Your task to perform on an android device: toggle location history Image 0: 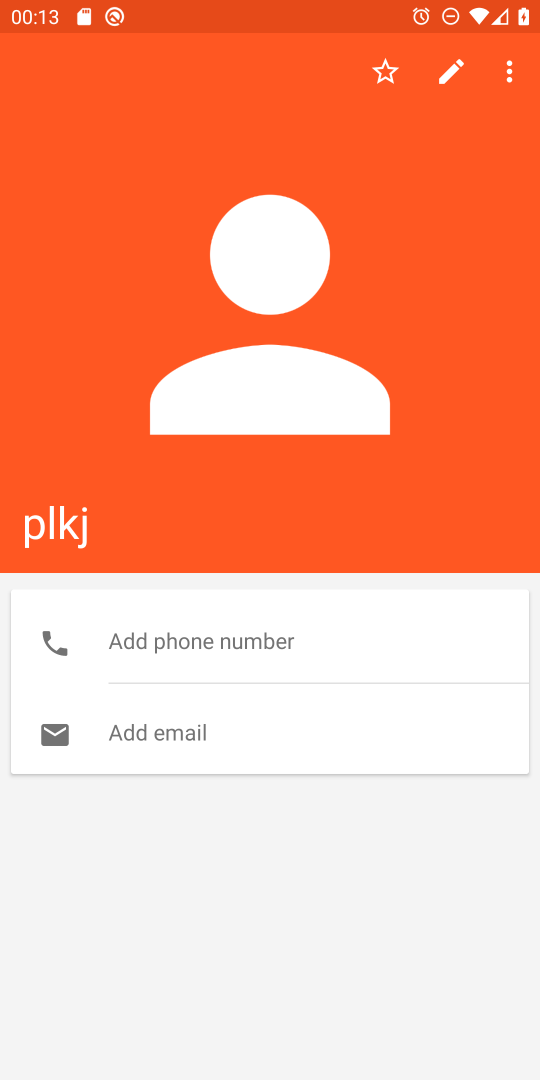
Step 0: press home button
Your task to perform on an android device: toggle location history Image 1: 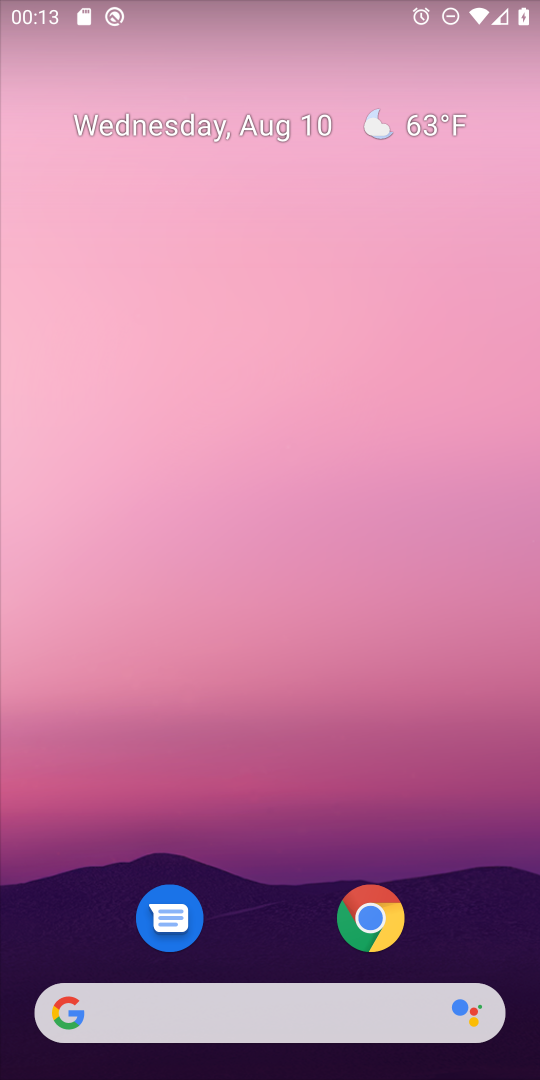
Step 1: drag from (276, 844) to (207, 67)
Your task to perform on an android device: toggle location history Image 2: 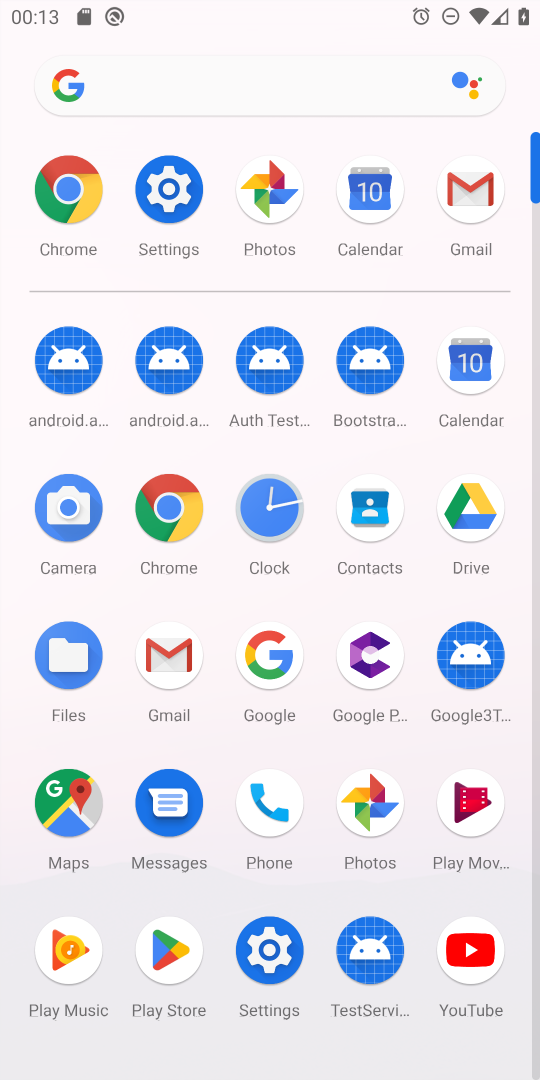
Step 2: click (174, 183)
Your task to perform on an android device: toggle location history Image 3: 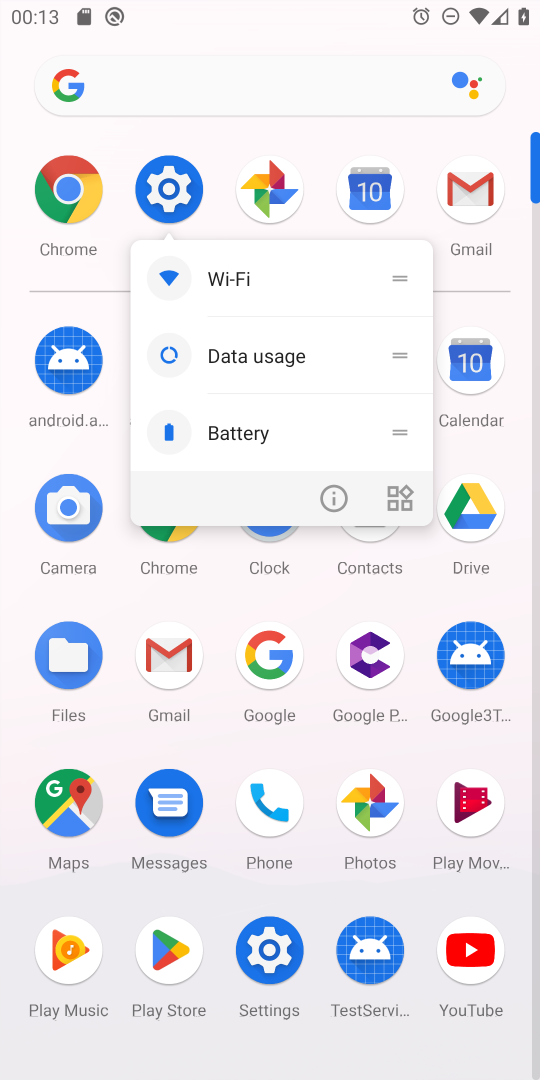
Step 3: click (173, 192)
Your task to perform on an android device: toggle location history Image 4: 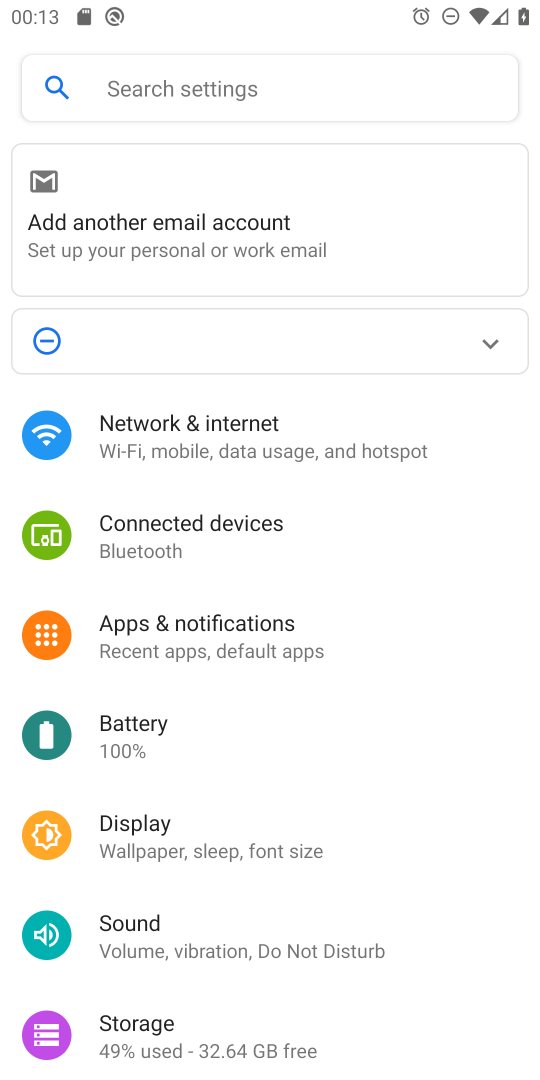
Step 4: drag from (367, 846) to (414, 371)
Your task to perform on an android device: toggle location history Image 5: 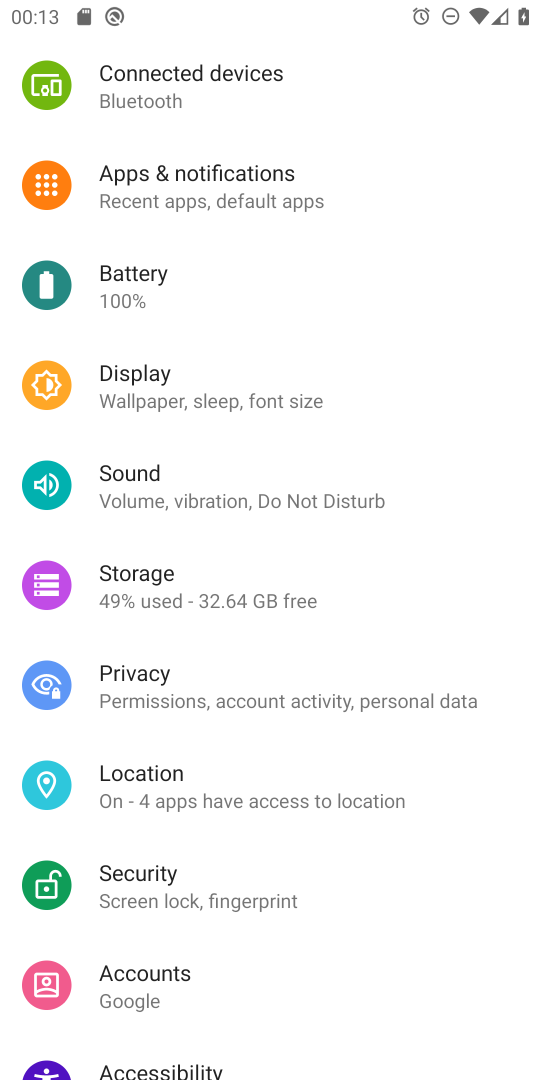
Step 5: click (119, 777)
Your task to perform on an android device: toggle location history Image 6: 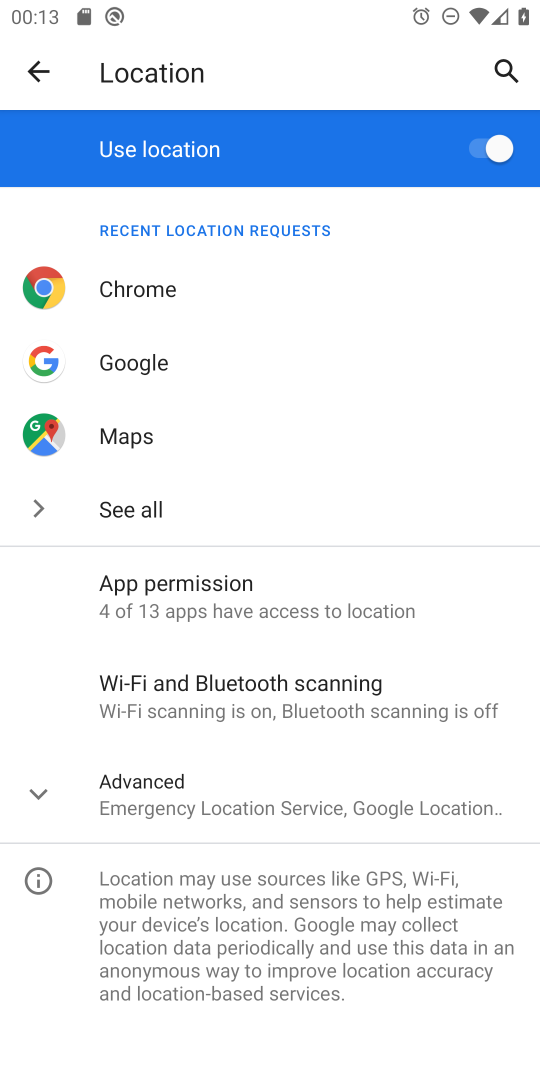
Step 6: click (174, 789)
Your task to perform on an android device: toggle location history Image 7: 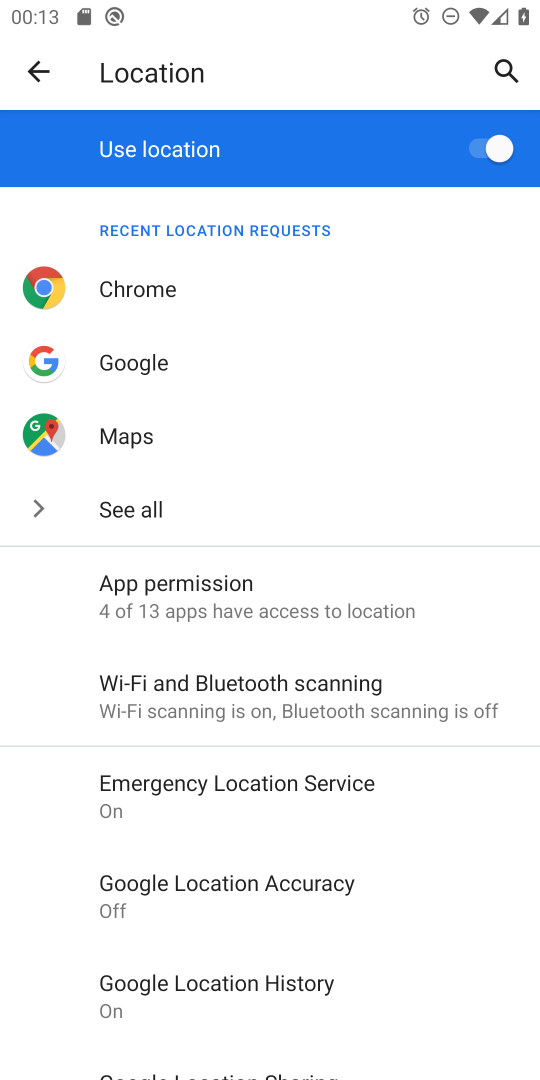
Step 7: click (266, 977)
Your task to perform on an android device: toggle location history Image 8: 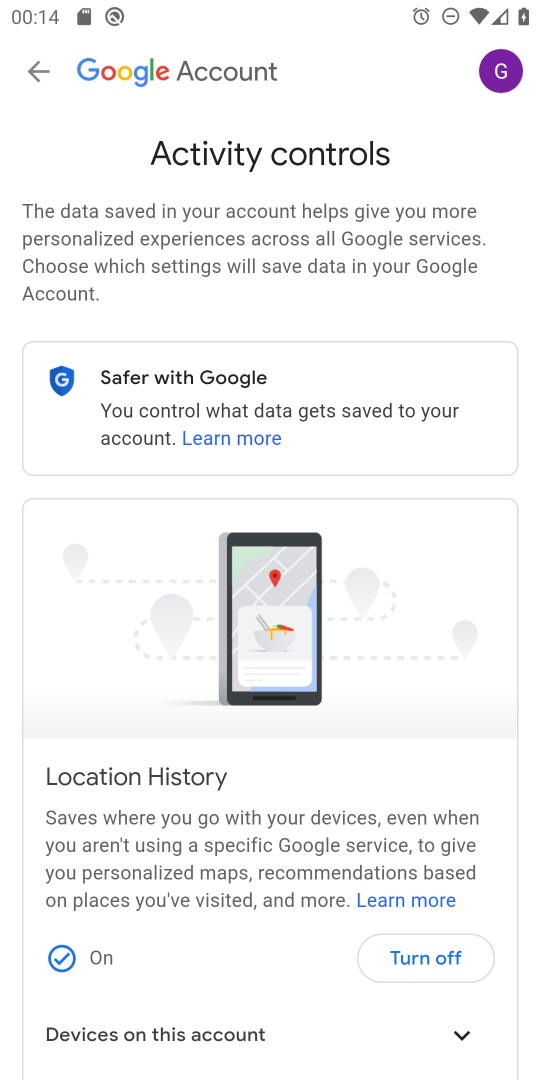
Step 8: click (450, 965)
Your task to perform on an android device: toggle location history Image 9: 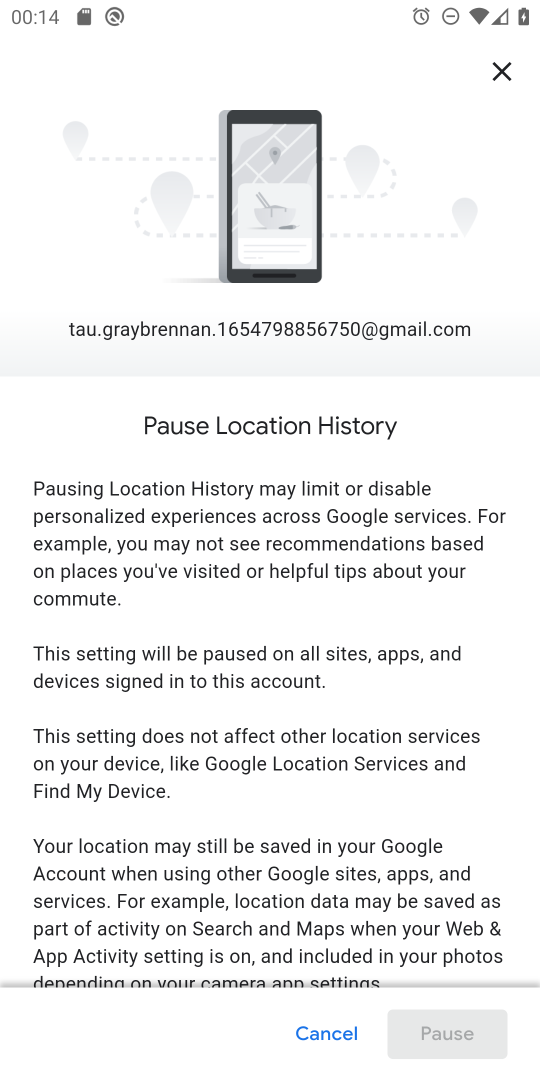
Step 9: drag from (426, 986) to (443, 504)
Your task to perform on an android device: toggle location history Image 10: 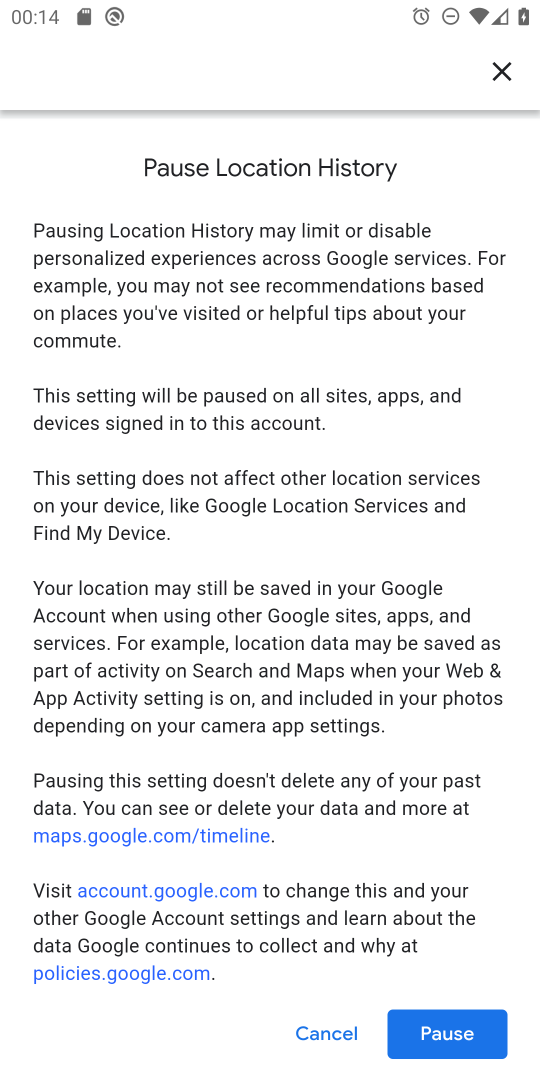
Step 10: click (440, 1038)
Your task to perform on an android device: toggle location history Image 11: 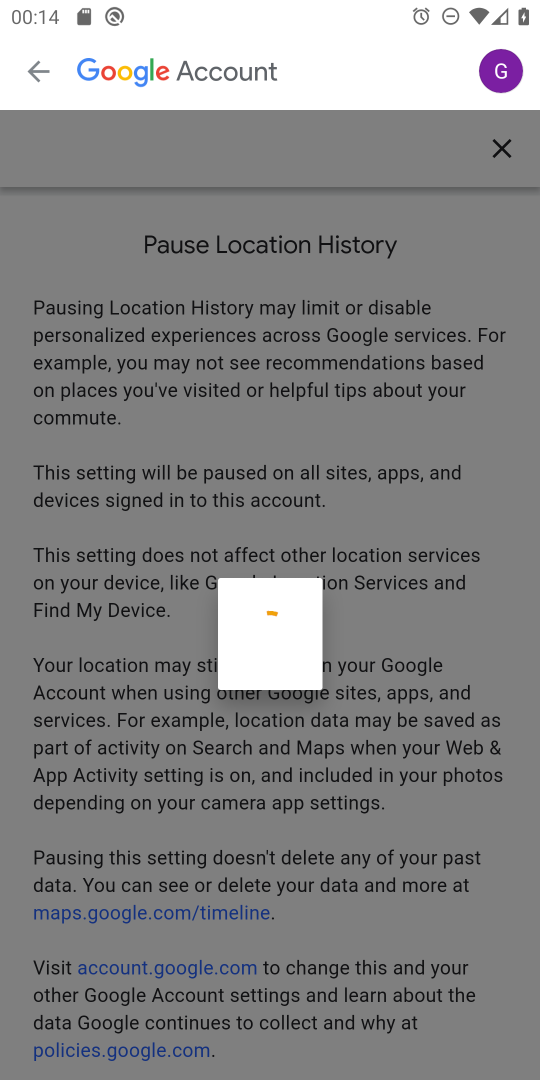
Step 11: click (440, 1038)
Your task to perform on an android device: toggle location history Image 12: 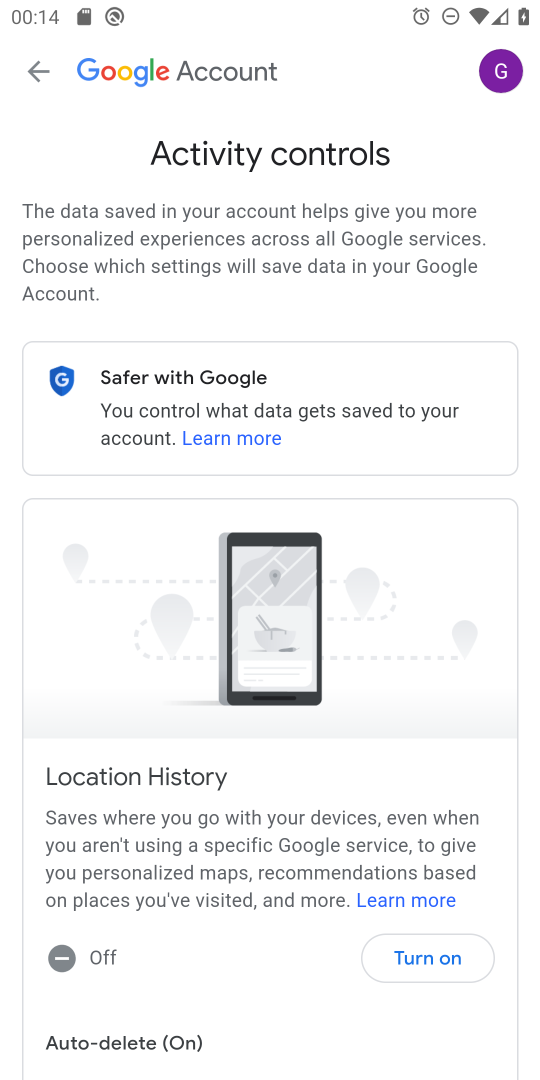
Step 12: click (440, 1038)
Your task to perform on an android device: toggle location history Image 13: 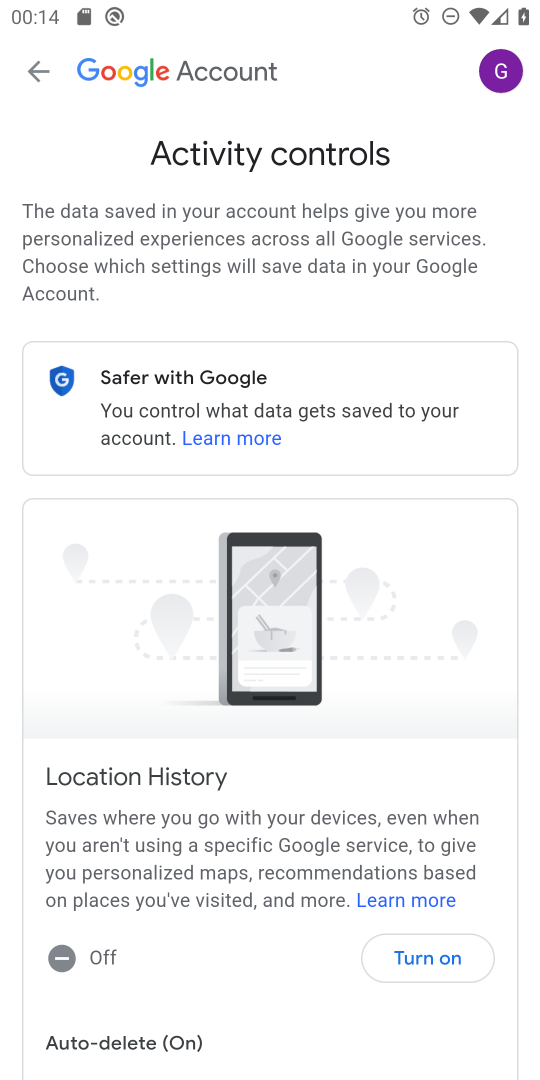
Step 13: task complete